Your task to perform on an android device: all mails in gmail Image 0: 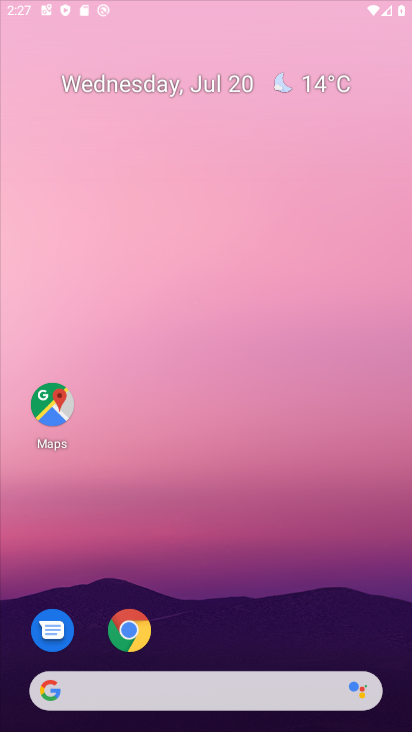
Step 0: press home button
Your task to perform on an android device: all mails in gmail Image 1: 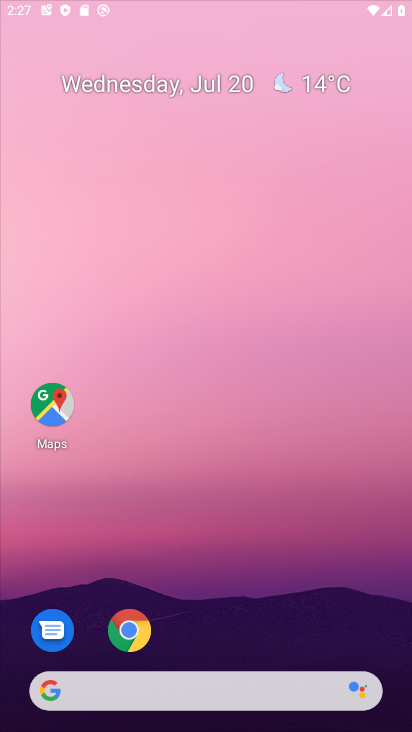
Step 1: drag from (244, 695) to (260, 305)
Your task to perform on an android device: all mails in gmail Image 2: 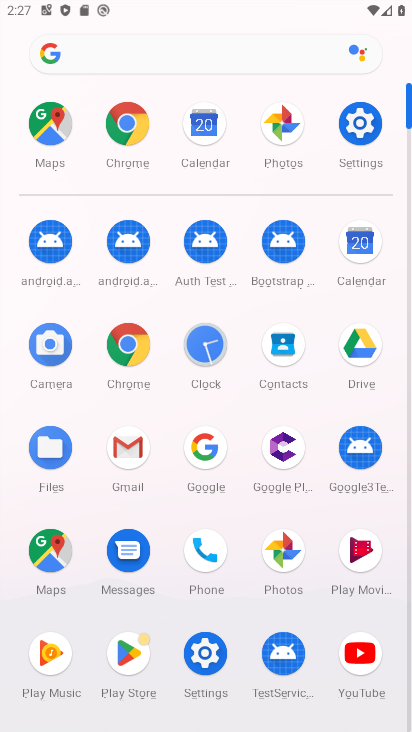
Step 2: click (352, 257)
Your task to perform on an android device: all mails in gmail Image 3: 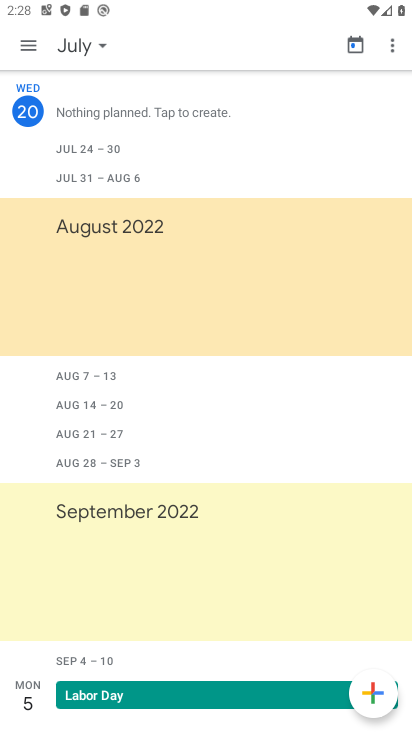
Step 3: task complete